Your task to perform on an android device: Clear all items from cart on target. Search for sony triple a on target, select the first entry, and add it to the cart. Image 0: 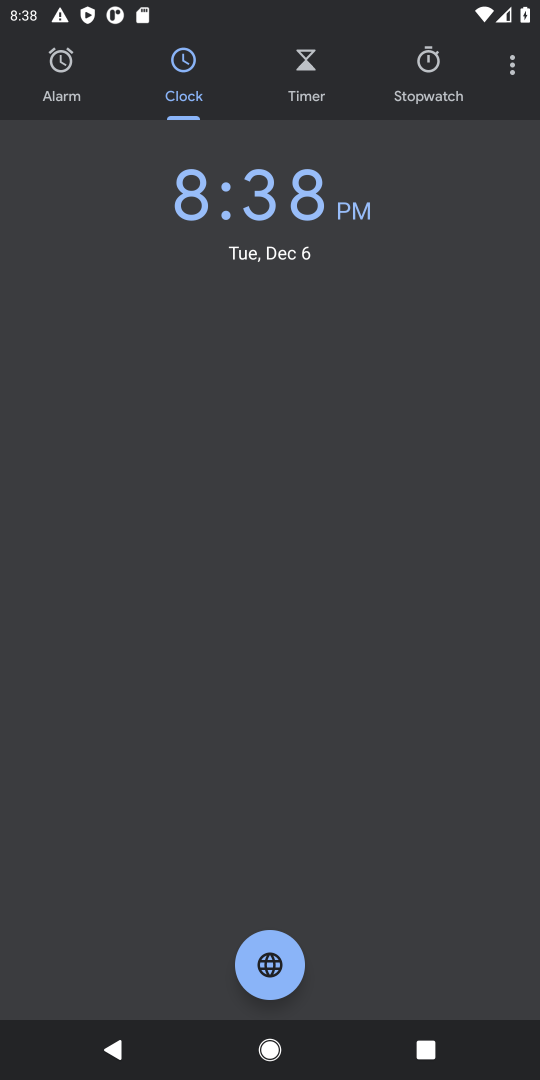
Step 0: click (375, 854)
Your task to perform on an android device: Clear all items from cart on target. Search for sony triple a on target, select the first entry, and add it to the cart. Image 1: 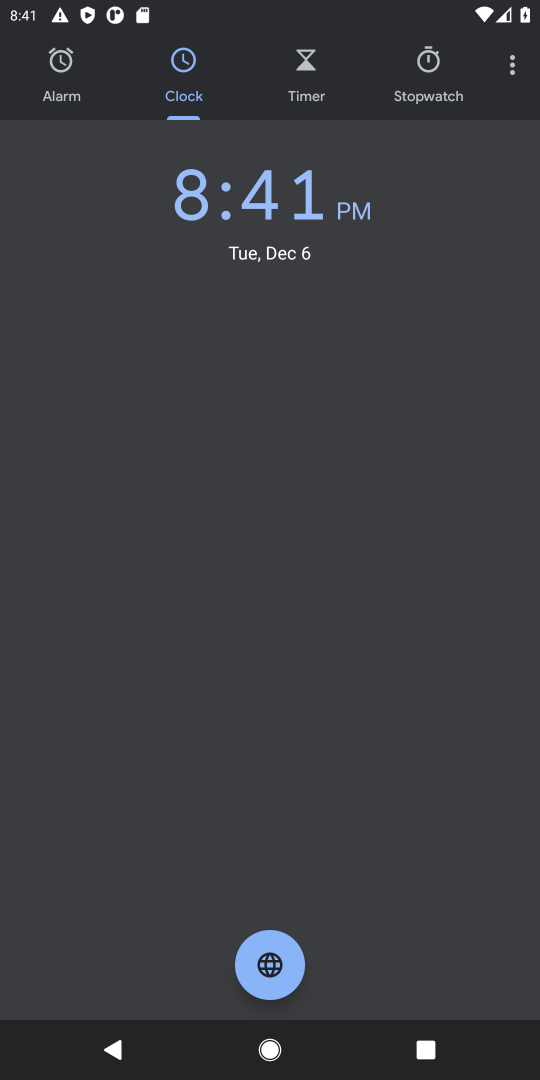
Step 1: task complete